Your task to perform on an android device: Go to internet settings Image 0: 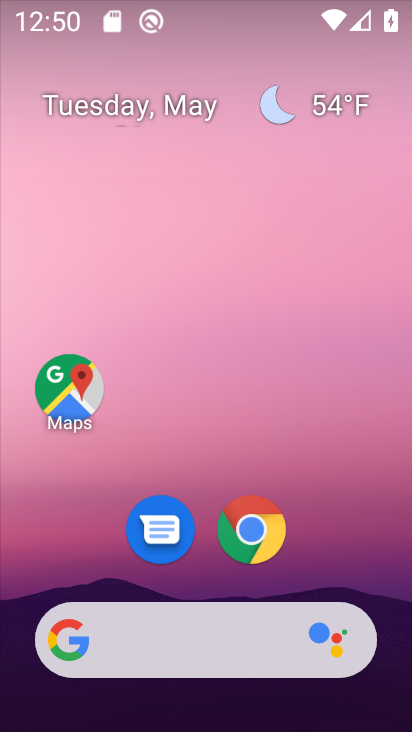
Step 0: drag from (336, 560) to (328, 231)
Your task to perform on an android device: Go to internet settings Image 1: 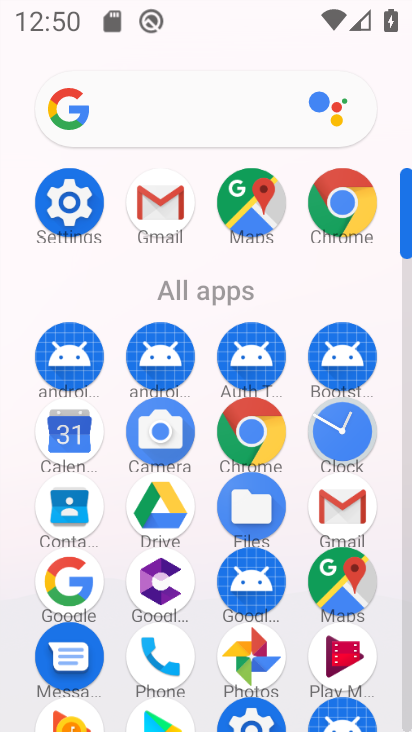
Step 1: click (83, 201)
Your task to perform on an android device: Go to internet settings Image 2: 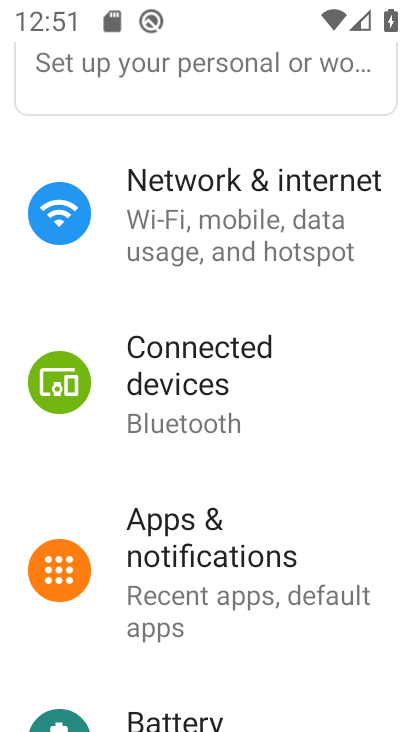
Step 2: click (223, 226)
Your task to perform on an android device: Go to internet settings Image 3: 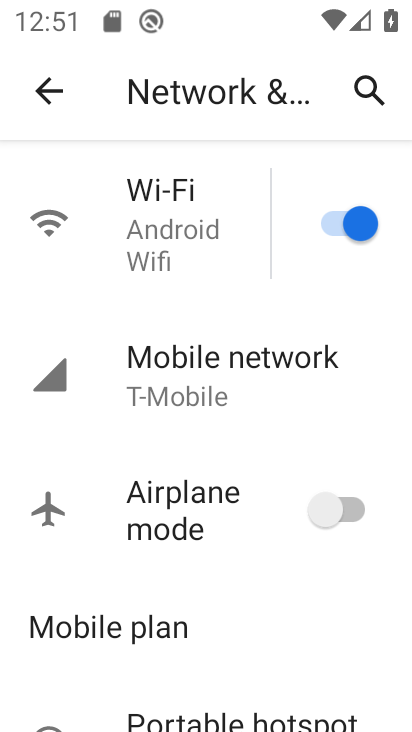
Step 3: task complete